Your task to perform on an android device: Open calendar and show me the second week of next month Image 0: 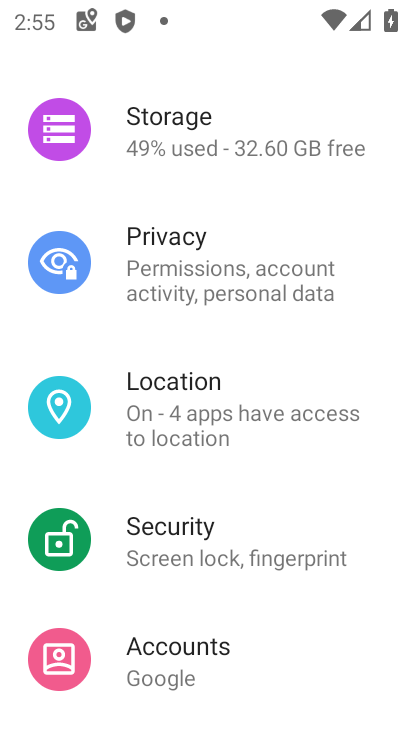
Step 0: press back button
Your task to perform on an android device: Open calendar and show me the second week of next month Image 1: 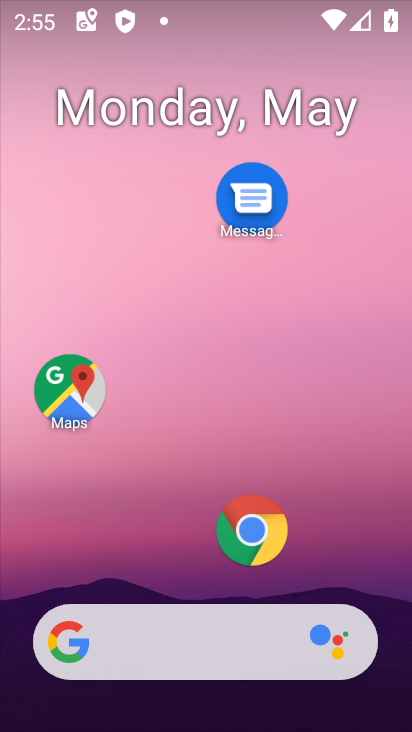
Step 1: drag from (94, 573) to (213, 93)
Your task to perform on an android device: Open calendar and show me the second week of next month Image 2: 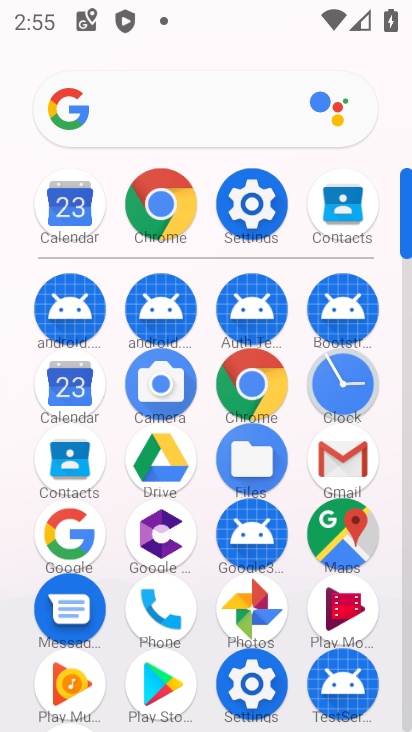
Step 2: click (64, 399)
Your task to perform on an android device: Open calendar and show me the second week of next month Image 3: 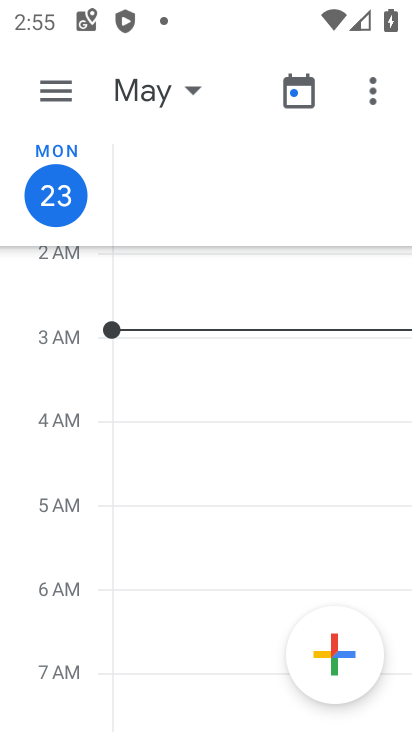
Step 3: press back button
Your task to perform on an android device: Open calendar and show me the second week of next month Image 4: 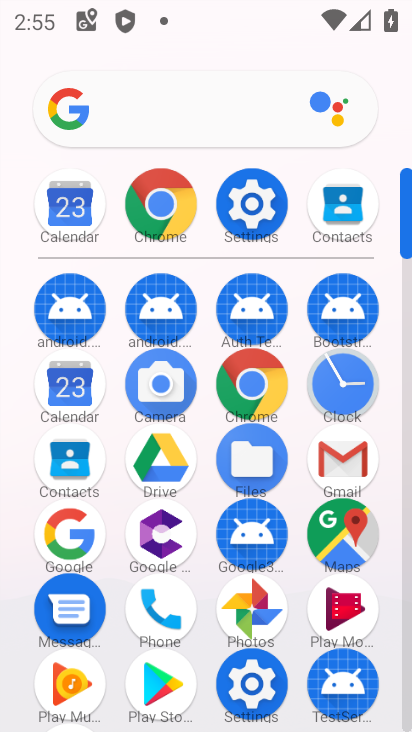
Step 4: click (71, 385)
Your task to perform on an android device: Open calendar and show me the second week of next month Image 5: 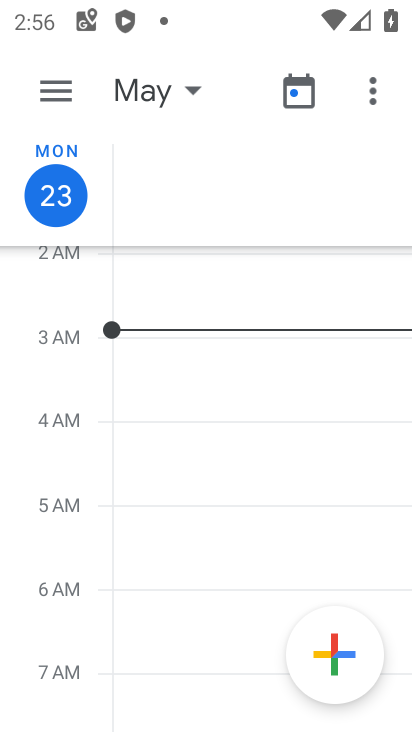
Step 5: click (171, 91)
Your task to perform on an android device: Open calendar and show me the second week of next month Image 6: 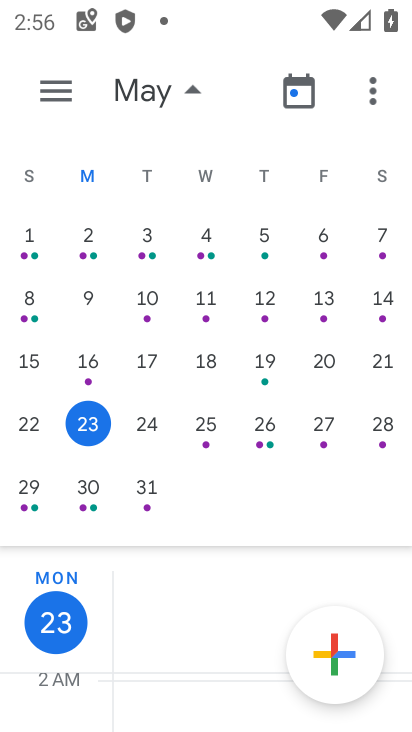
Step 6: drag from (375, 325) to (69, 290)
Your task to perform on an android device: Open calendar and show me the second week of next month Image 7: 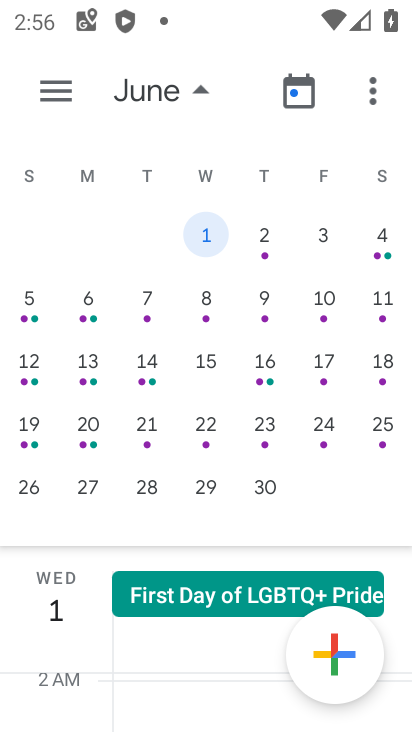
Step 7: click (86, 306)
Your task to perform on an android device: Open calendar and show me the second week of next month Image 8: 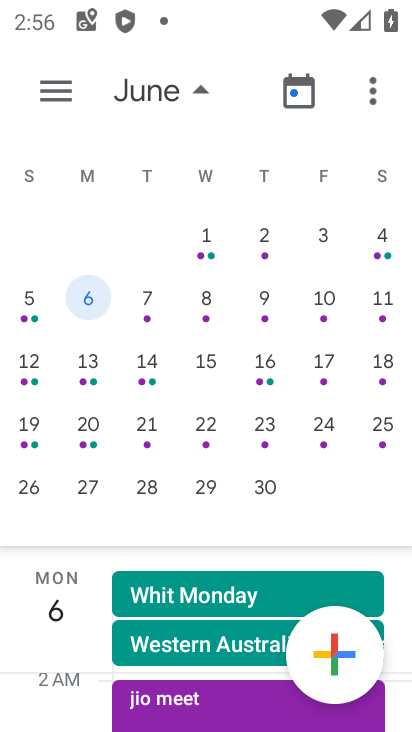
Step 8: task complete